Your task to perform on an android device: Open Chrome and go to settings Image 0: 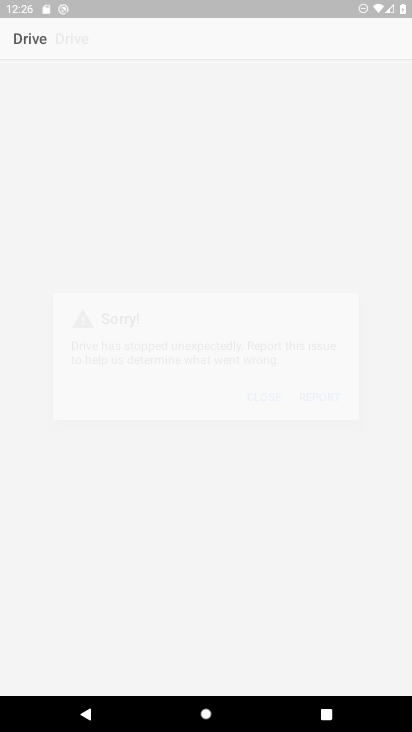
Step 0: drag from (217, 593) to (241, 23)
Your task to perform on an android device: Open Chrome and go to settings Image 1: 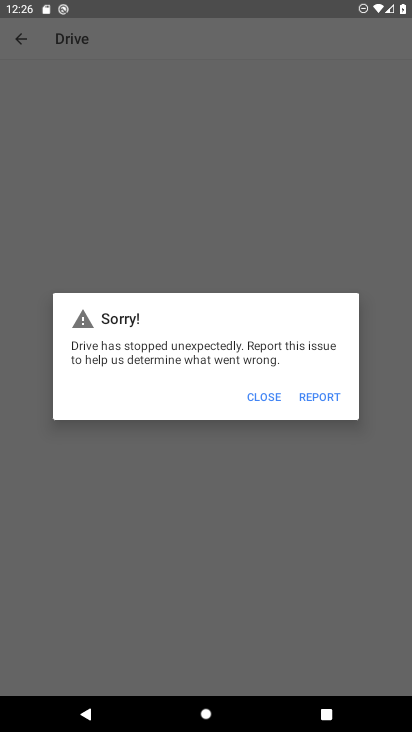
Step 1: press home button
Your task to perform on an android device: Open Chrome and go to settings Image 2: 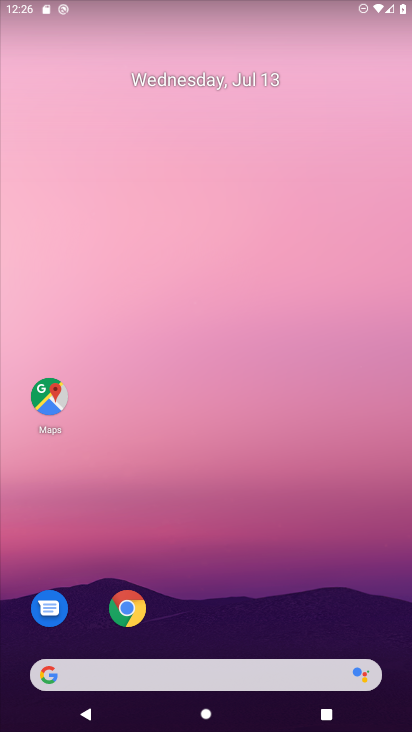
Step 2: click (120, 601)
Your task to perform on an android device: Open Chrome and go to settings Image 3: 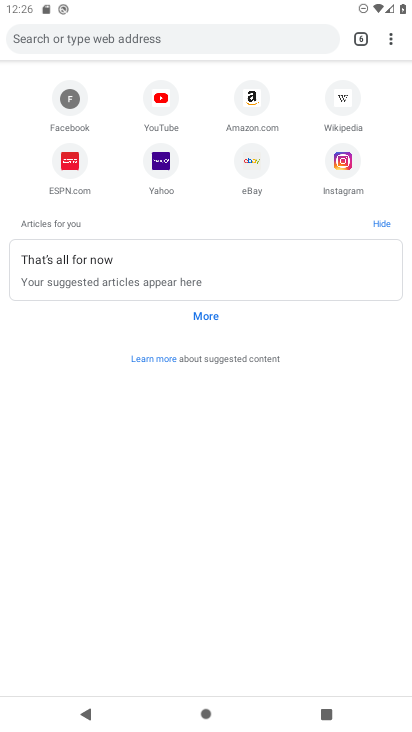
Step 3: click (397, 35)
Your task to perform on an android device: Open Chrome and go to settings Image 4: 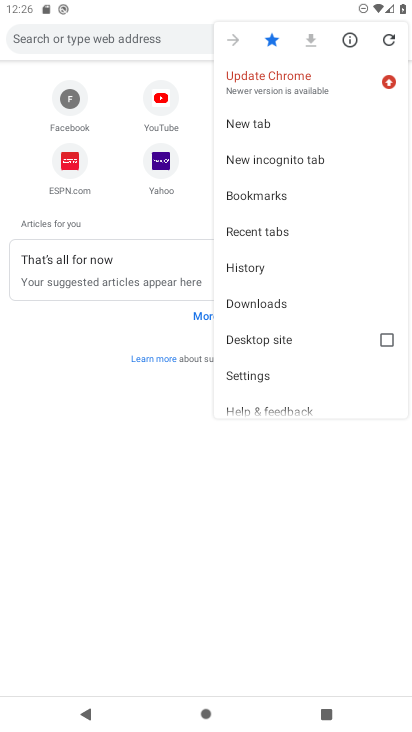
Step 4: click (297, 382)
Your task to perform on an android device: Open Chrome and go to settings Image 5: 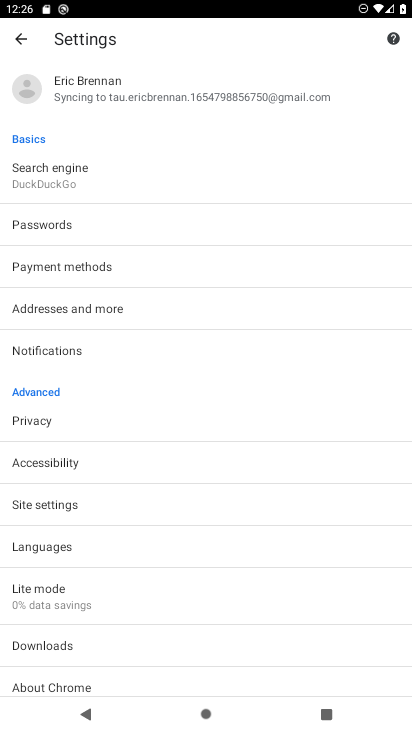
Step 5: task complete